Your task to perform on an android device: open app "NewsBreak: Local News & Alerts" (install if not already installed), go to login, and select forgot password Image 0: 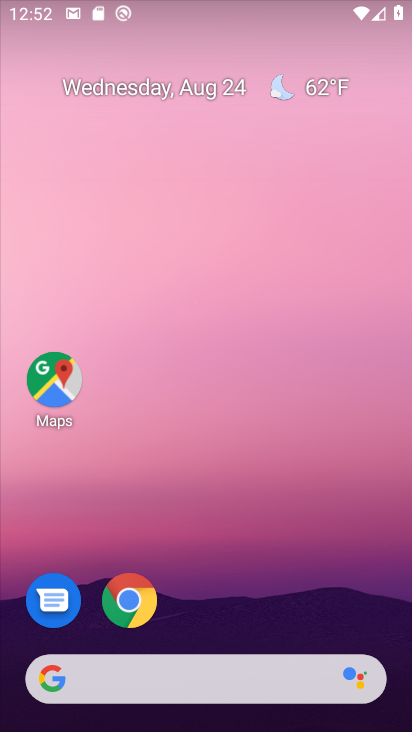
Step 0: drag from (302, 619) to (261, 222)
Your task to perform on an android device: open app "NewsBreak: Local News & Alerts" (install if not already installed), go to login, and select forgot password Image 1: 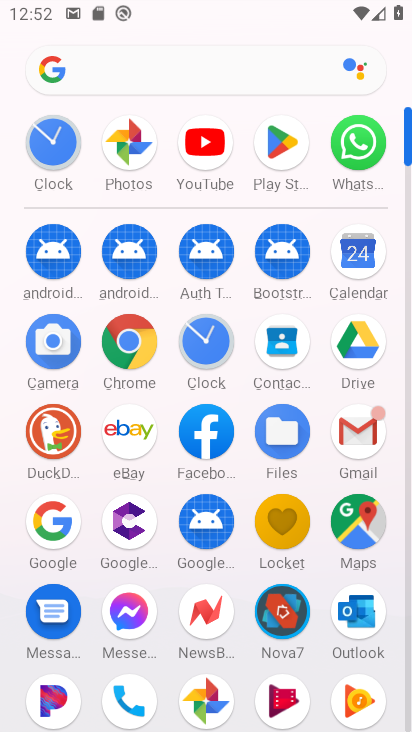
Step 1: click (274, 148)
Your task to perform on an android device: open app "NewsBreak: Local News & Alerts" (install if not already installed), go to login, and select forgot password Image 2: 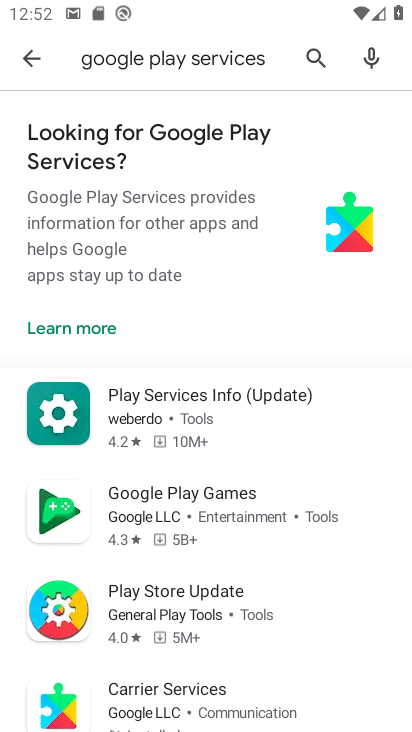
Step 2: click (312, 64)
Your task to perform on an android device: open app "NewsBreak: Local News & Alerts" (install if not already installed), go to login, and select forgot password Image 3: 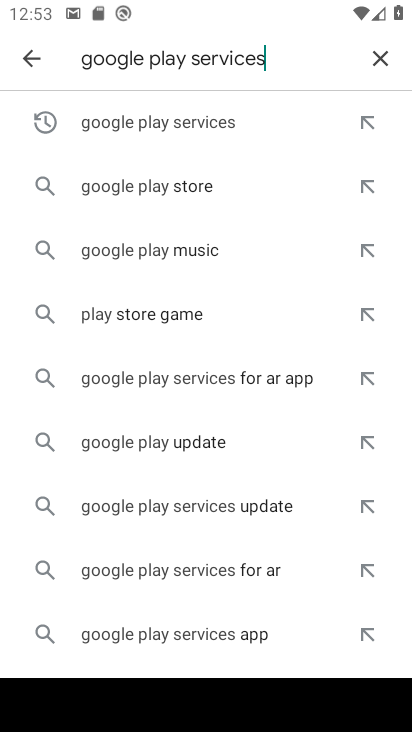
Step 3: click (369, 57)
Your task to perform on an android device: open app "NewsBreak: Local News & Alerts" (install if not already installed), go to login, and select forgot password Image 4: 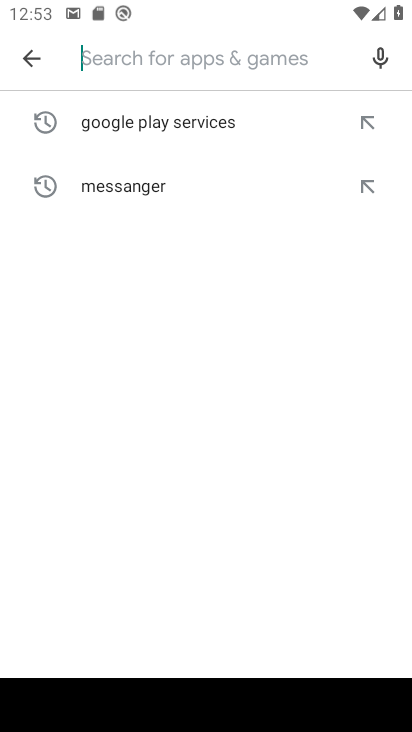
Step 4: type "news break"
Your task to perform on an android device: open app "NewsBreak: Local News & Alerts" (install if not already installed), go to login, and select forgot password Image 5: 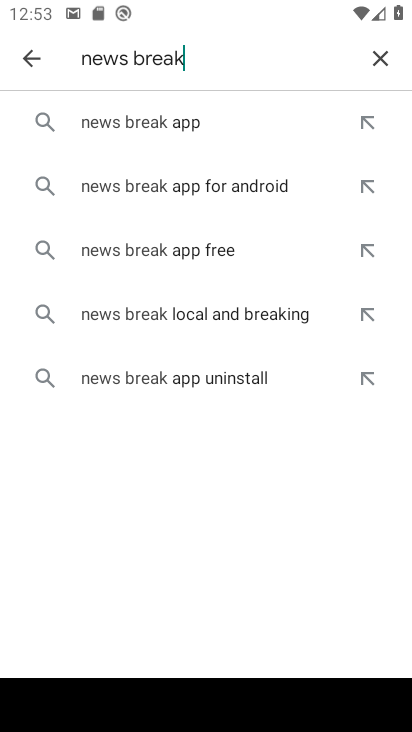
Step 5: click (255, 129)
Your task to perform on an android device: open app "NewsBreak: Local News & Alerts" (install if not already installed), go to login, and select forgot password Image 6: 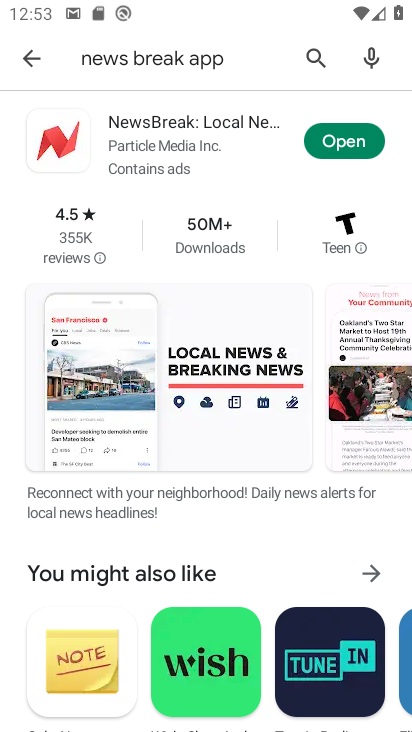
Step 6: click (298, 130)
Your task to perform on an android device: open app "NewsBreak: Local News & Alerts" (install if not already installed), go to login, and select forgot password Image 7: 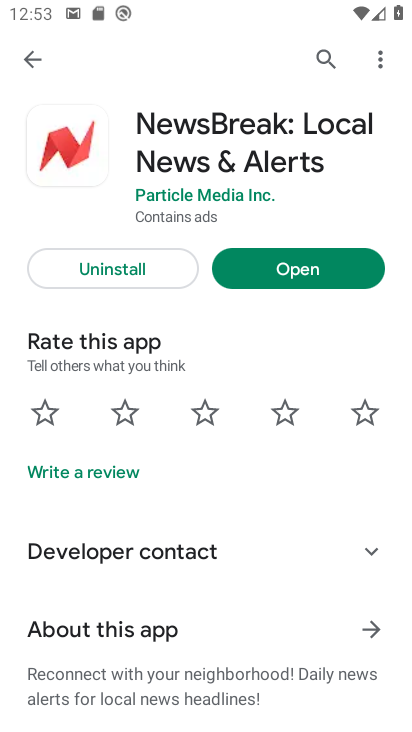
Step 7: task complete